Your task to perform on an android device: Open the calendar app, open the side menu, and click the "Day" option Image 0: 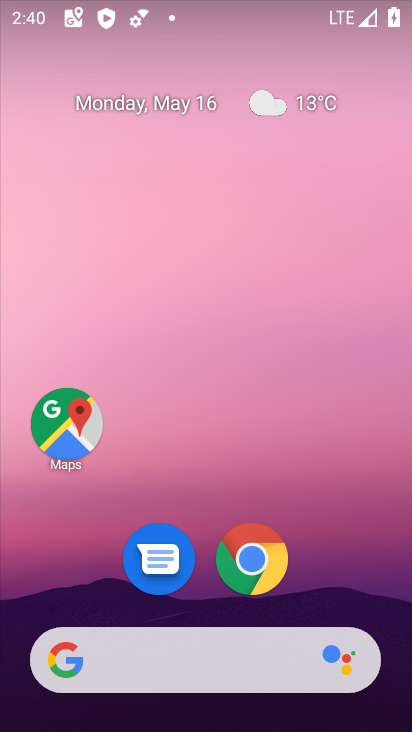
Step 0: drag from (197, 521) to (279, 65)
Your task to perform on an android device: Open the calendar app, open the side menu, and click the "Day" option Image 1: 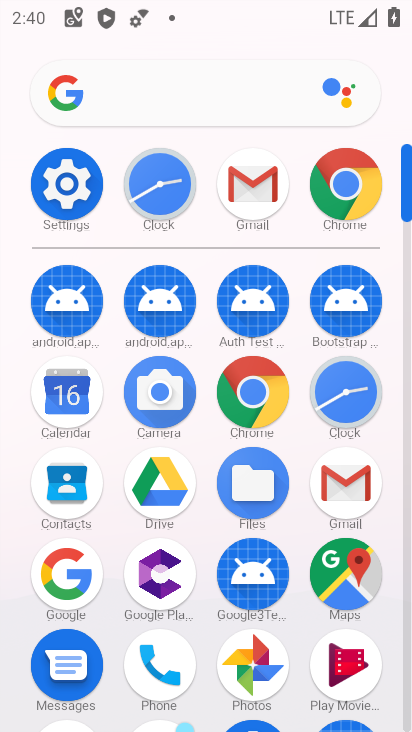
Step 1: click (53, 404)
Your task to perform on an android device: Open the calendar app, open the side menu, and click the "Day" option Image 2: 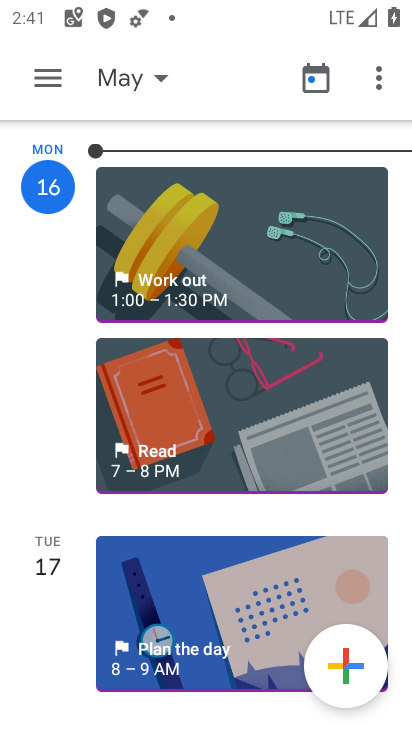
Step 2: click (46, 78)
Your task to perform on an android device: Open the calendar app, open the side menu, and click the "Day" option Image 3: 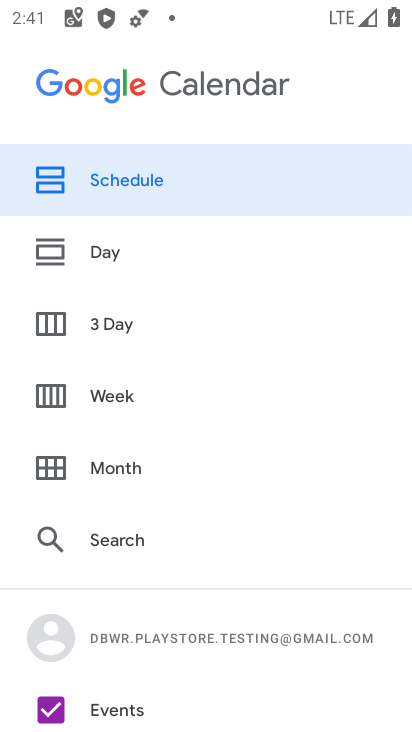
Step 3: click (155, 251)
Your task to perform on an android device: Open the calendar app, open the side menu, and click the "Day" option Image 4: 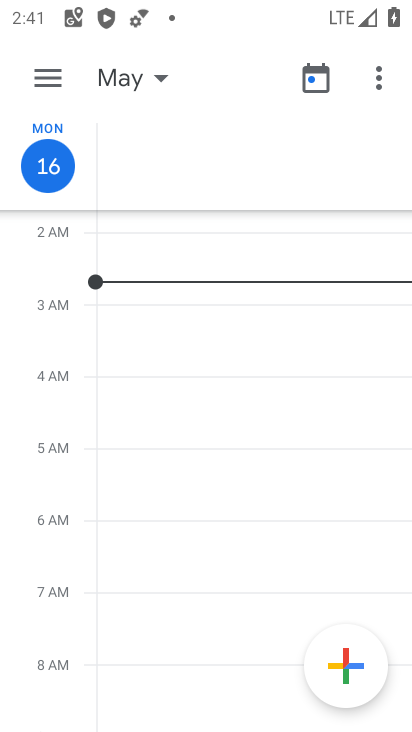
Step 4: task complete